Your task to perform on an android device: toggle pop-ups in chrome Image 0: 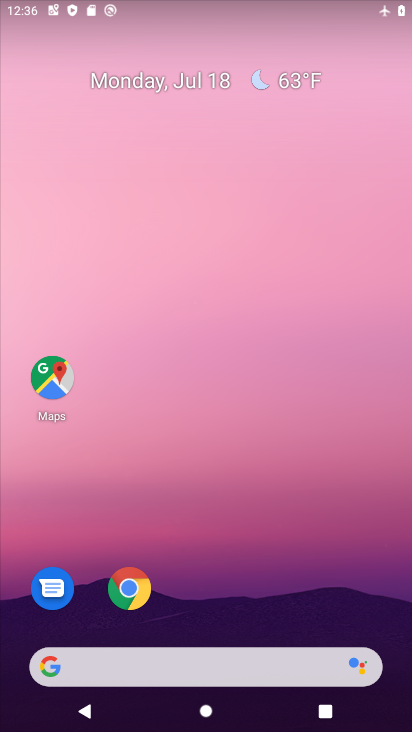
Step 0: click (130, 594)
Your task to perform on an android device: toggle pop-ups in chrome Image 1: 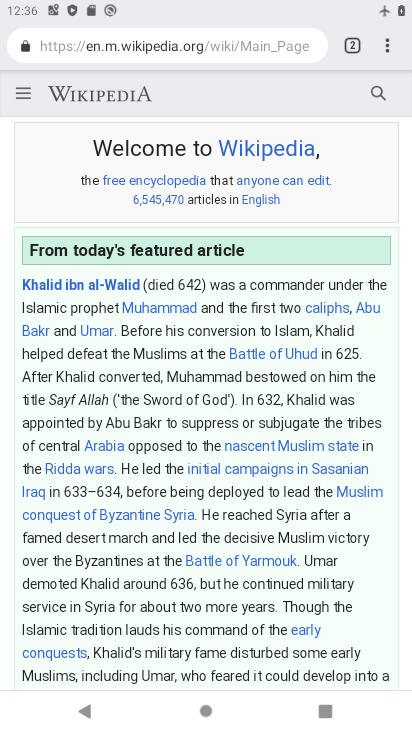
Step 1: click (386, 50)
Your task to perform on an android device: toggle pop-ups in chrome Image 2: 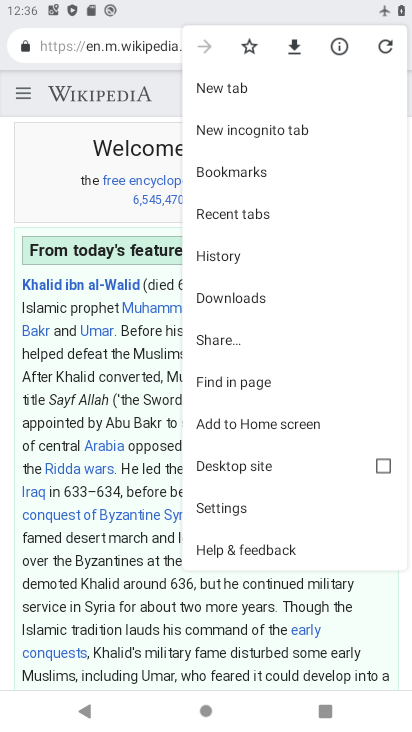
Step 2: click (217, 504)
Your task to perform on an android device: toggle pop-ups in chrome Image 3: 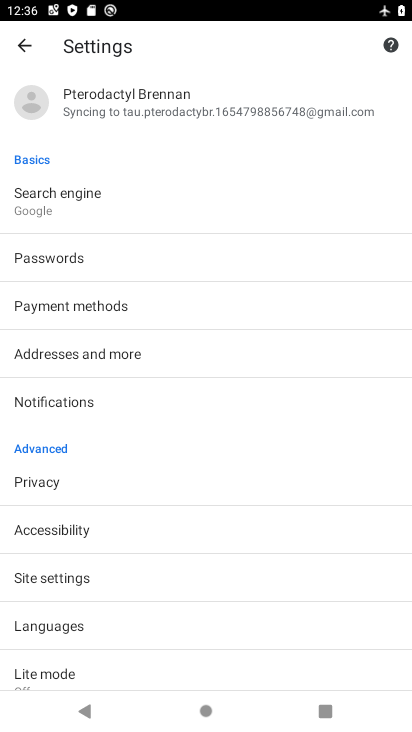
Step 3: click (42, 576)
Your task to perform on an android device: toggle pop-ups in chrome Image 4: 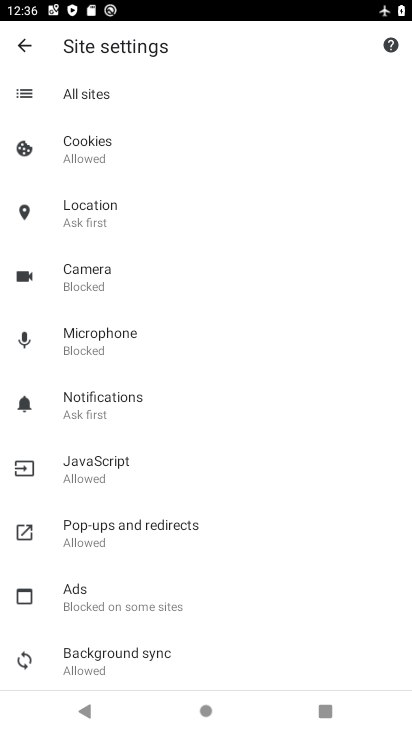
Step 4: click (86, 523)
Your task to perform on an android device: toggle pop-ups in chrome Image 5: 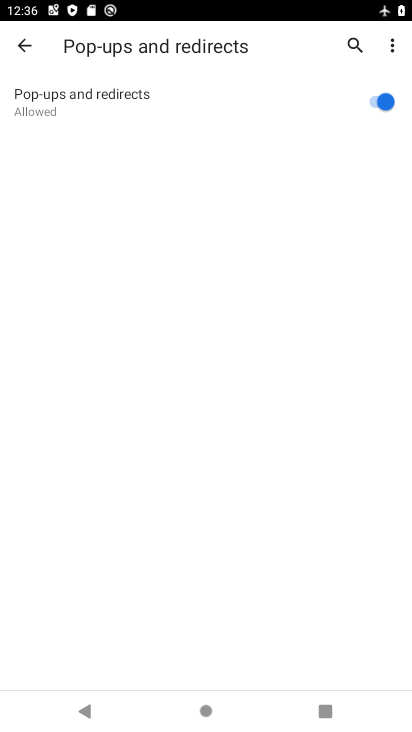
Step 5: click (83, 528)
Your task to perform on an android device: toggle pop-ups in chrome Image 6: 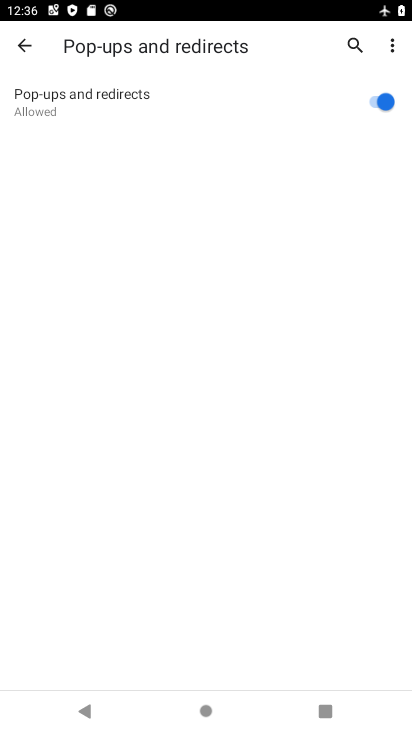
Step 6: click (381, 99)
Your task to perform on an android device: toggle pop-ups in chrome Image 7: 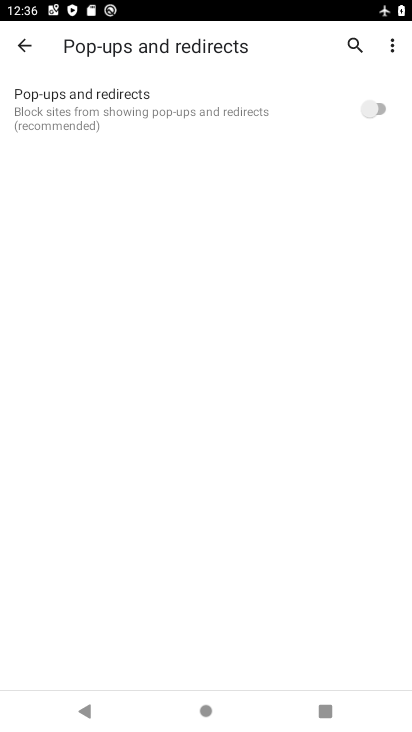
Step 7: task complete